Your task to perform on an android device: turn on showing notifications on the lock screen Image 0: 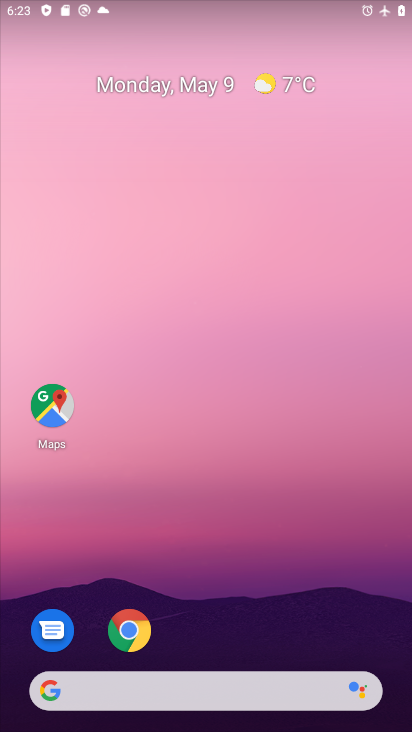
Step 0: drag from (252, 631) to (195, 164)
Your task to perform on an android device: turn on showing notifications on the lock screen Image 1: 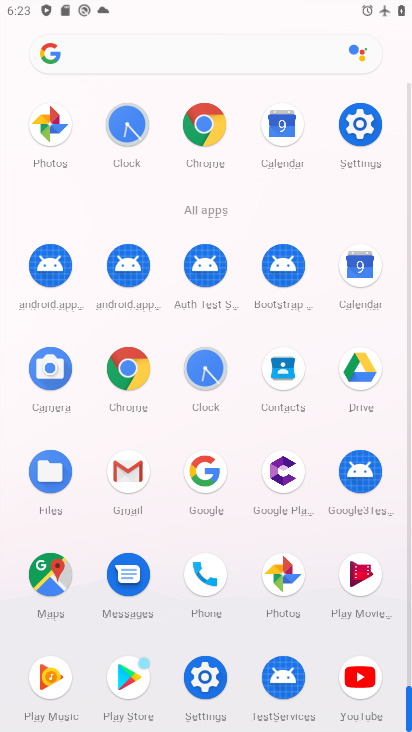
Step 1: click (372, 163)
Your task to perform on an android device: turn on showing notifications on the lock screen Image 2: 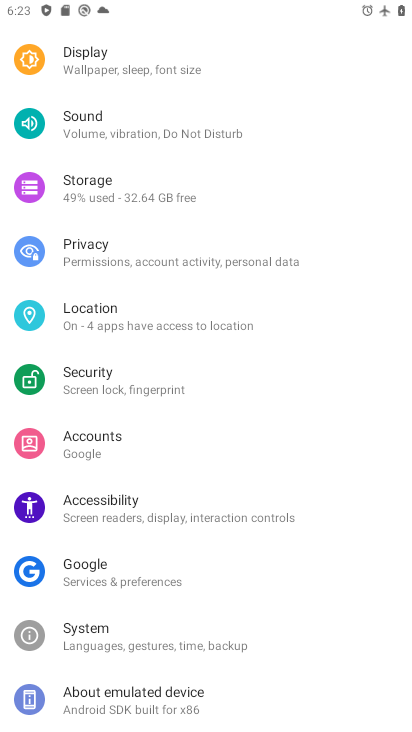
Step 2: drag from (138, 140) to (145, 500)
Your task to perform on an android device: turn on showing notifications on the lock screen Image 3: 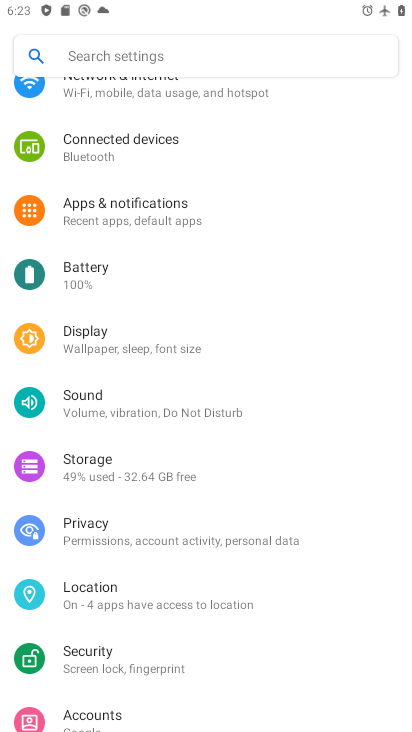
Step 3: drag from (150, 172) to (180, 548)
Your task to perform on an android device: turn on showing notifications on the lock screen Image 4: 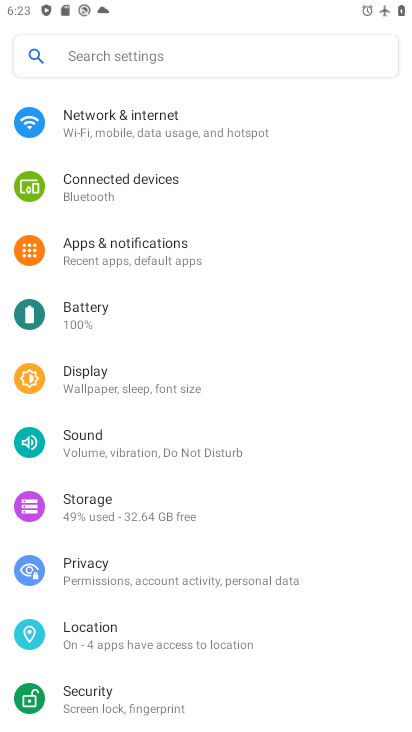
Step 4: drag from (170, 163) to (169, 635)
Your task to perform on an android device: turn on showing notifications on the lock screen Image 5: 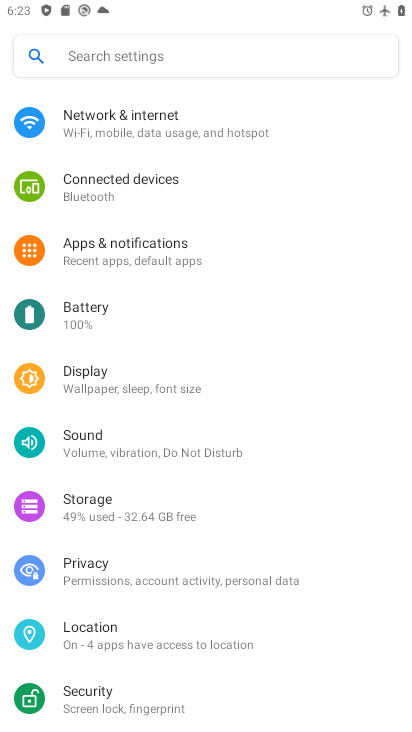
Step 5: click (99, 259)
Your task to perform on an android device: turn on showing notifications on the lock screen Image 6: 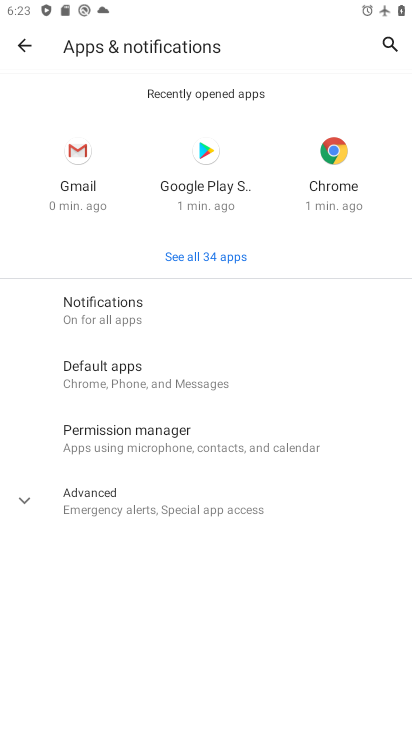
Step 6: click (149, 317)
Your task to perform on an android device: turn on showing notifications on the lock screen Image 7: 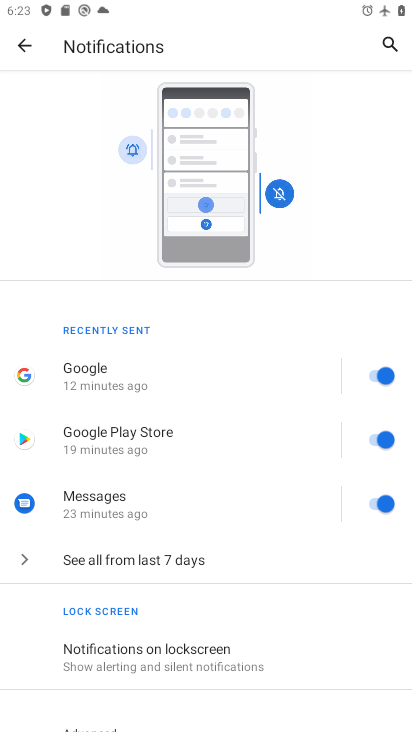
Step 7: click (157, 680)
Your task to perform on an android device: turn on showing notifications on the lock screen Image 8: 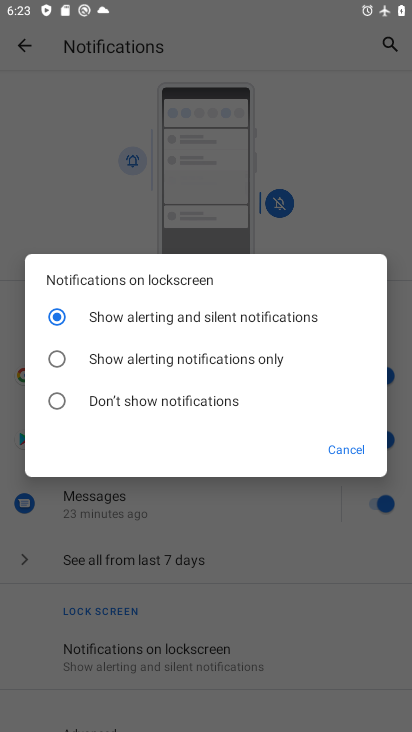
Step 8: task complete